Your task to perform on an android device: Open the phone app and click the voicemail tab. Image 0: 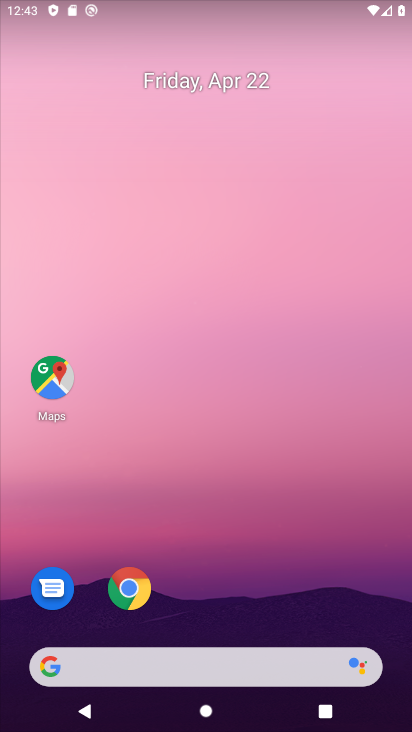
Step 0: drag from (396, 565) to (392, 162)
Your task to perform on an android device: Open the phone app and click the voicemail tab. Image 1: 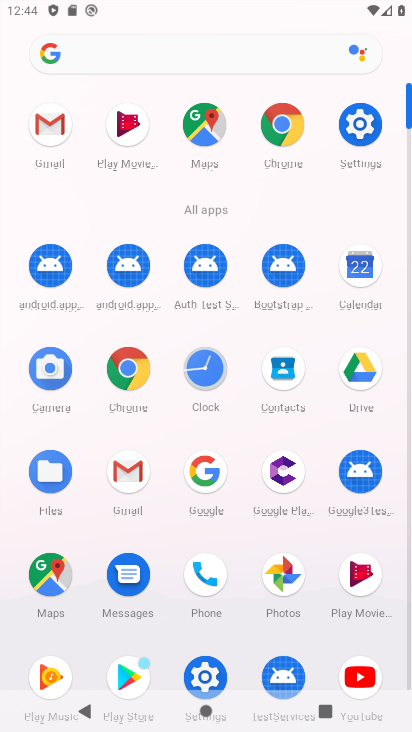
Step 1: click (196, 579)
Your task to perform on an android device: Open the phone app and click the voicemail tab. Image 2: 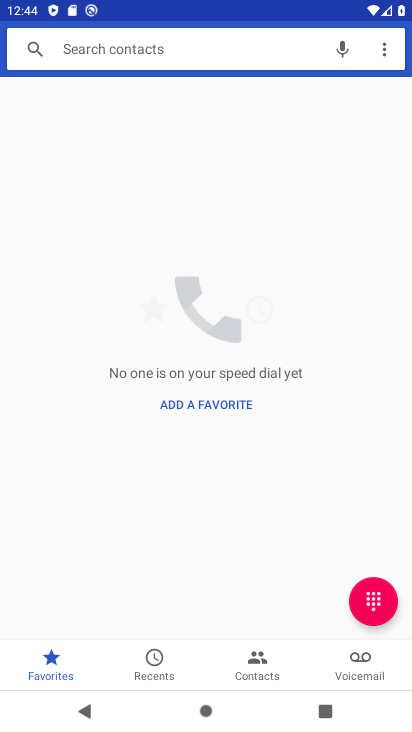
Step 2: click (352, 674)
Your task to perform on an android device: Open the phone app and click the voicemail tab. Image 3: 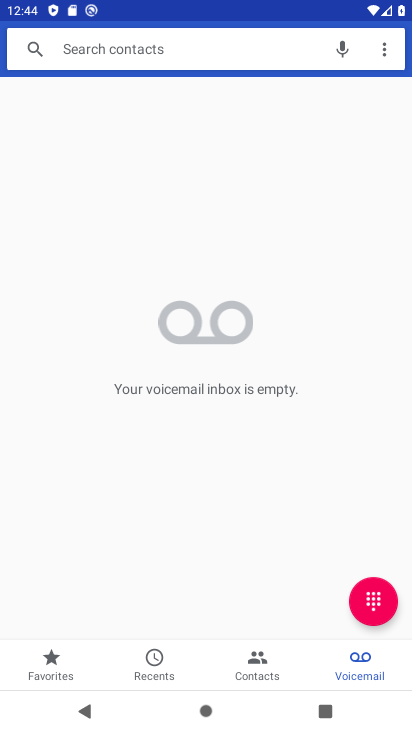
Step 3: task complete